Your task to perform on an android device: Open location settings Image 0: 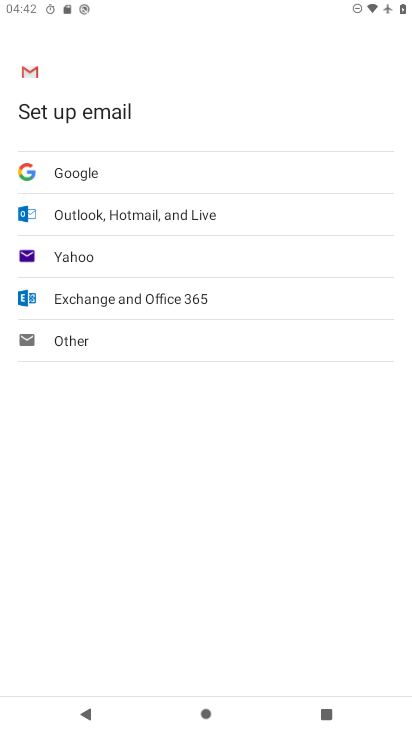
Step 0: press home button
Your task to perform on an android device: Open location settings Image 1: 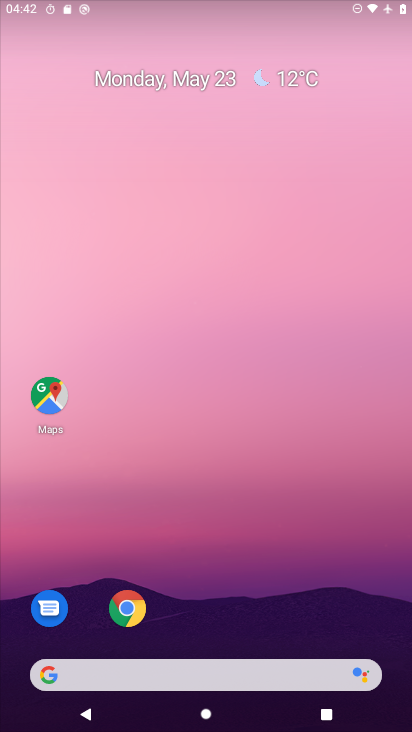
Step 1: drag from (318, 619) to (121, 74)
Your task to perform on an android device: Open location settings Image 2: 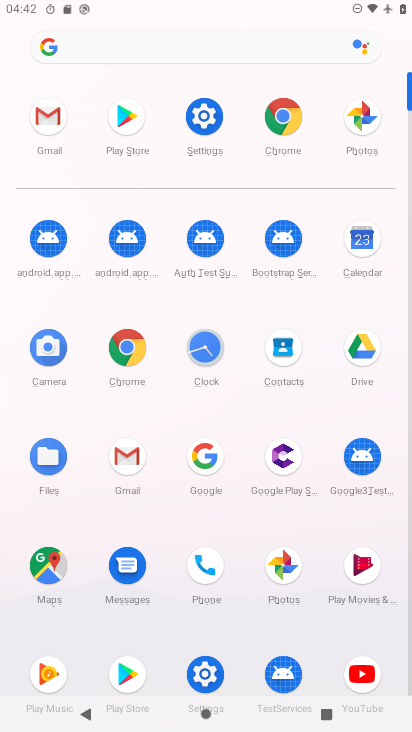
Step 2: click (208, 110)
Your task to perform on an android device: Open location settings Image 3: 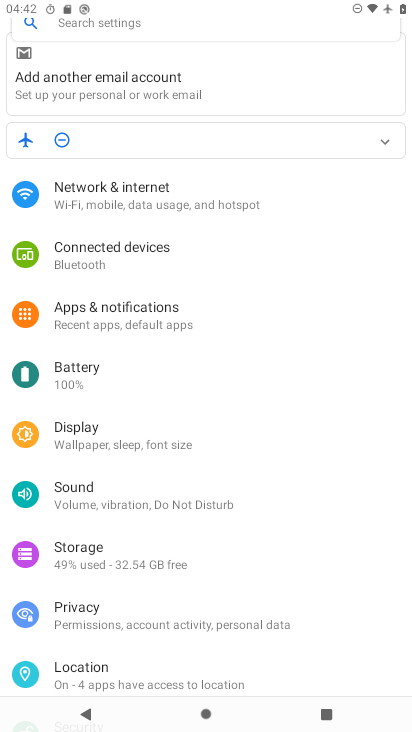
Step 3: click (175, 679)
Your task to perform on an android device: Open location settings Image 4: 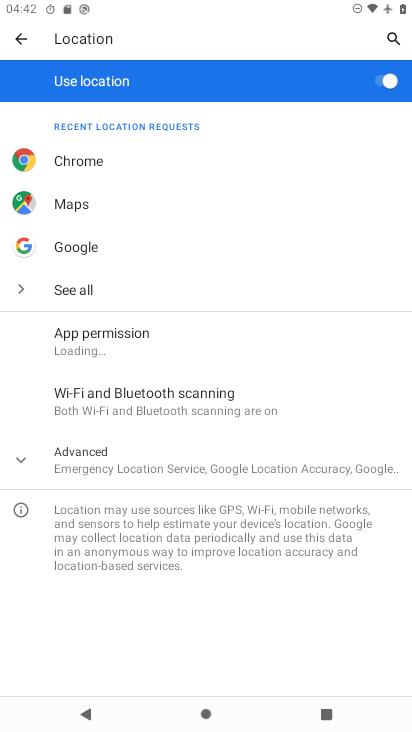
Step 4: task complete